Your task to perform on an android device: install app "VLC for Android" Image 0: 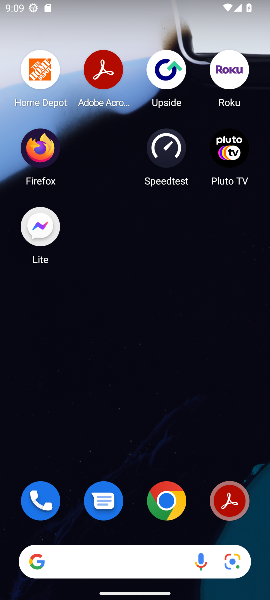
Step 0: drag from (130, 526) to (126, 101)
Your task to perform on an android device: install app "VLC for Android" Image 1: 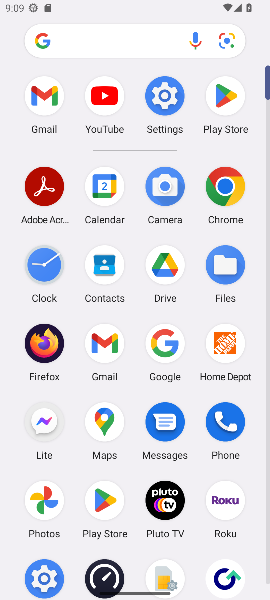
Step 1: click (223, 96)
Your task to perform on an android device: install app "VLC for Android" Image 2: 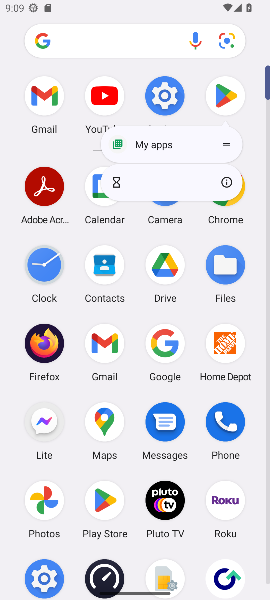
Step 2: click (227, 180)
Your task to perform on an android device: install app "VLC for Android" Image 3: 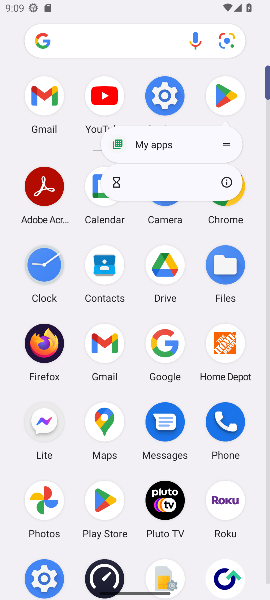
Step 3: click (226, 180)
Your task to perform on an android device: install app "VLC for Android" Image 4: 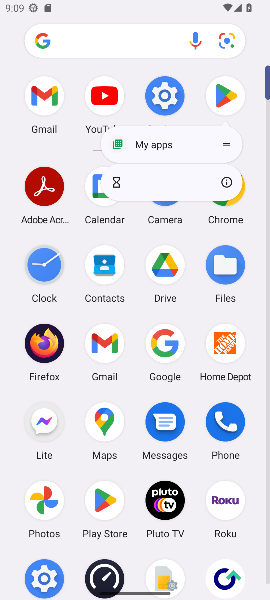
Step 4: click (227, 181)
Your task to perform on an android device: install app "VLC for Android" Image 5: 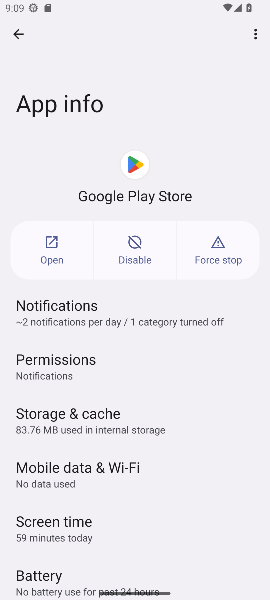
Step 5: click (59, 249)
Your task to perform on an android device: install app "VLC for Android" Image 6: 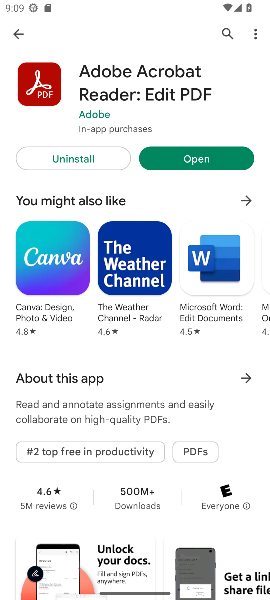
Step 6: click (184, 444)
Your task to perform on an android device: install app "VLC for Android" Image 7: 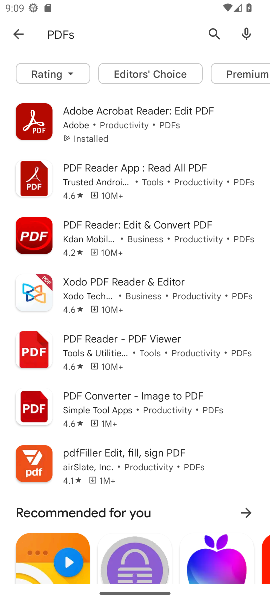
Step 7: click (13, 37)
Your task to perform on an android device: install app "VLC for Android" Image 8: 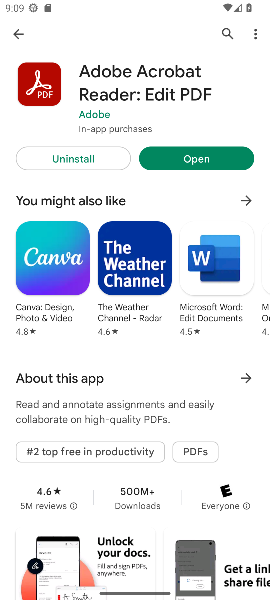
Step 8: click (222, 31)
Your task to perform on an android device: install app "VLC for Android" Image 9: 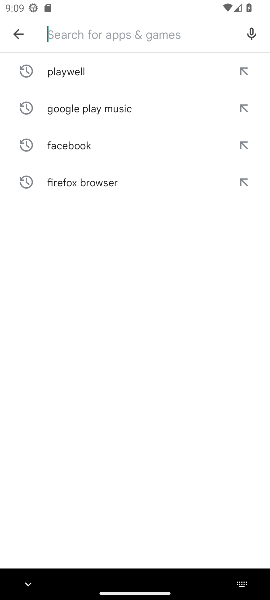
Step 9: type "VLC for Android"
Your task to perform on an android device: install app "VLC for Android" Image 10: 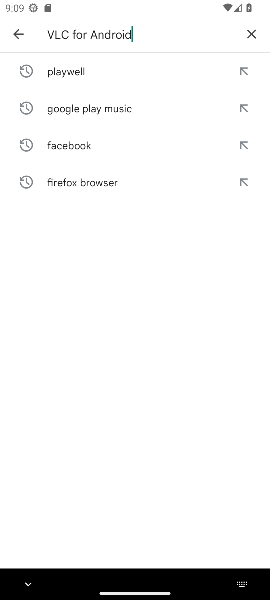
Step 10: type ""
Your task to perform on an android device: install app "VLC for Android" Image 11: 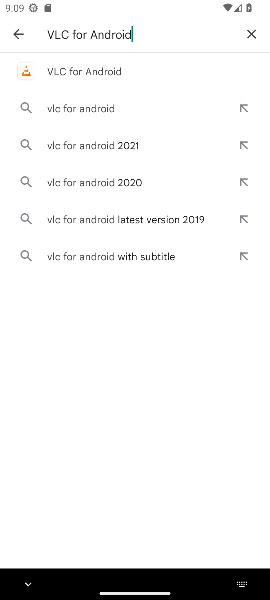
Step 11: click (109, 71)
Your task to perform on an android device: install app "VLC for Android" Image 12: 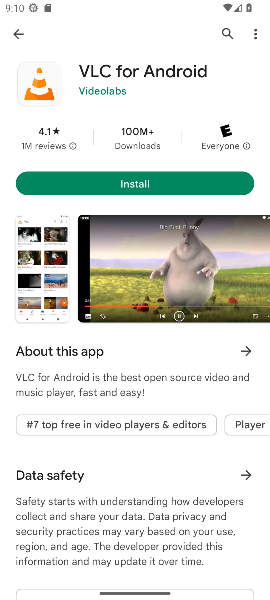
Step 12: task complete